Your task to perform on an android device: Open Google Maps Image 0: 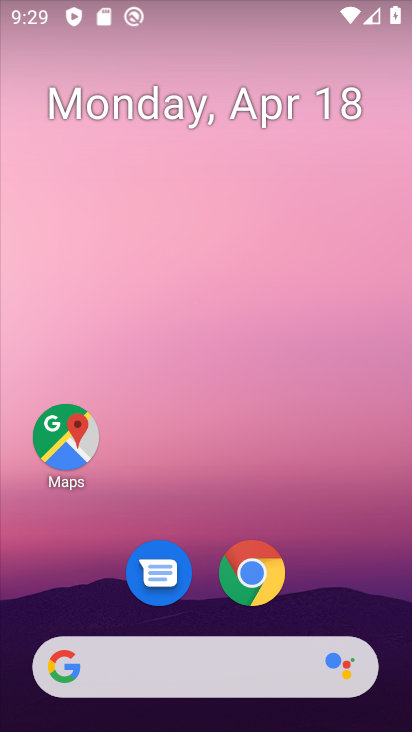
Step 0: drag from (356, 584) to (297, 45)
Your task to perform on an android device: Open Google Maps Image 1: 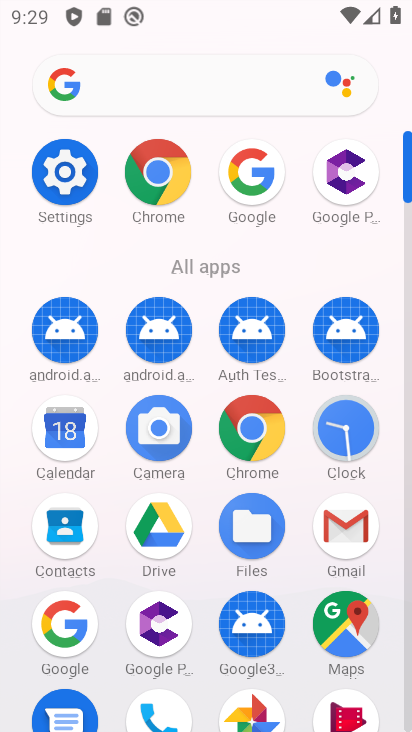
Step 1: click (349, 636)
Your task to perform on an android device: Open Google Maps Image 2: 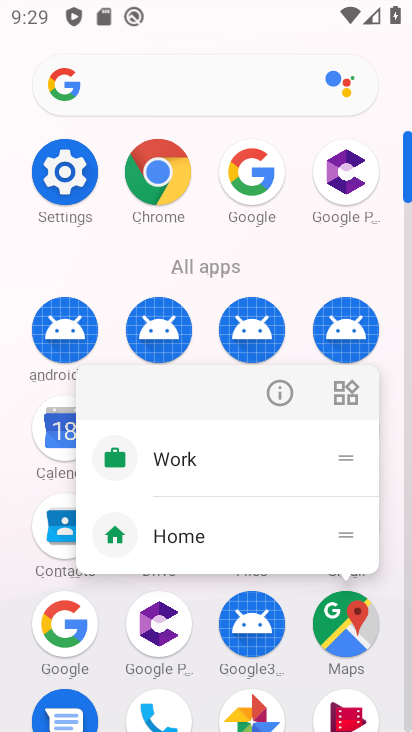
Step 2: click (349, 636)
Your task to perform on an android device: Open Google Maps Image 3: 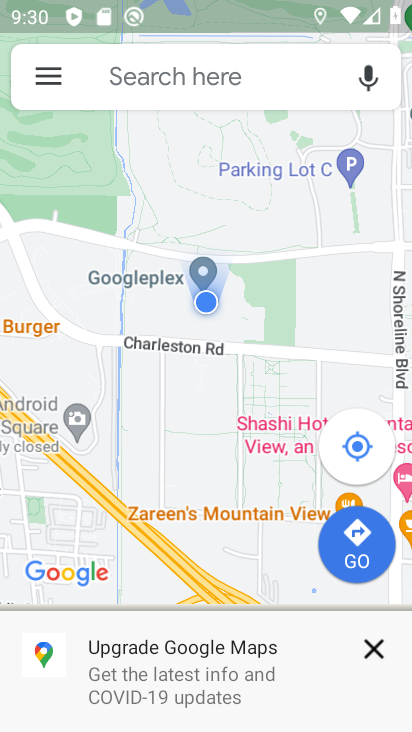
Step 3: task complete